Your task to perform on an android device: toggle airplane mode Image 0: 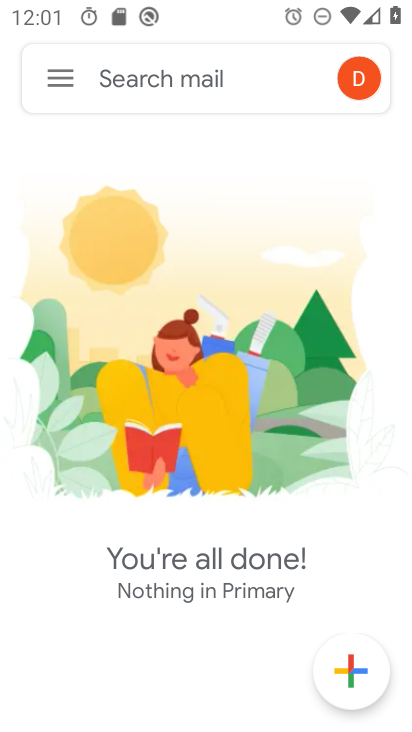
Step 0: press home button
Your task to perform on an android device: toggle airplane mode Image 1: 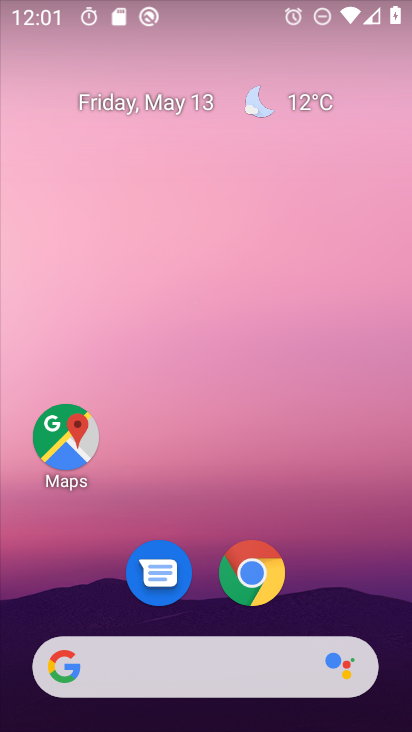
Step 1: drag from (395, 652) to (358, 247)
Your task to perform on an android device: toggle airplane mode Image 2: 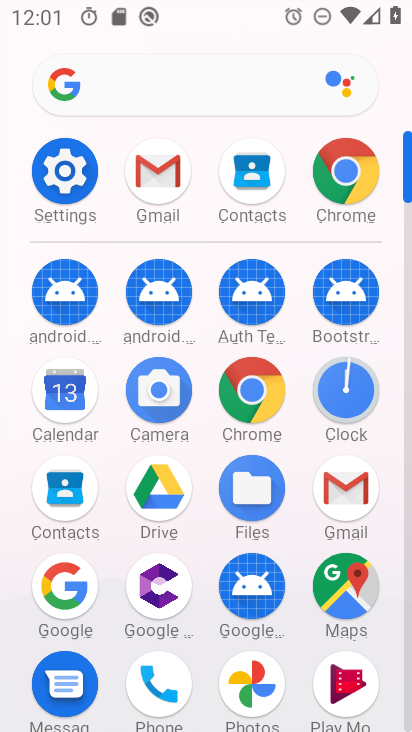
Step 2: click (58, 155)
Your task to perform on an android device: toggle airplane mode Image 3: 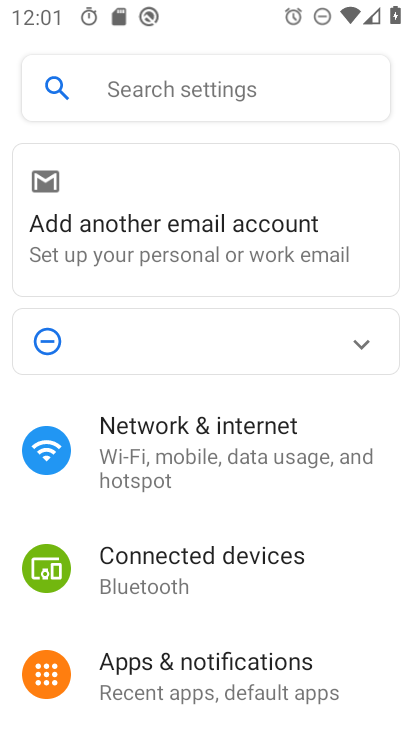
Step 3: click (174, 444)
Your task to perform on an android device: toggle airplane mode Image 4: 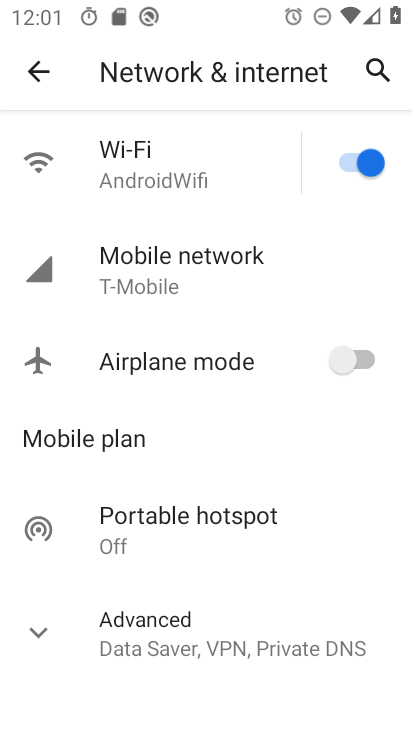
Step 4: click (369, 362)
Your task to perform on an android device: toggle airplane mode Image 5: 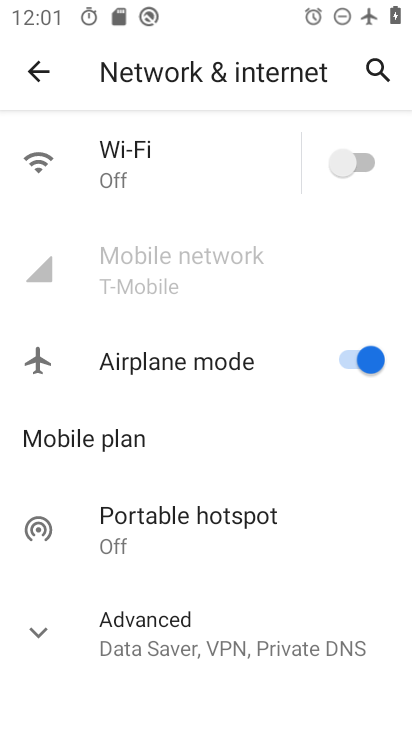
Step 5: task complete